Your task to perform on an android device: Go to internet settings Image 0: 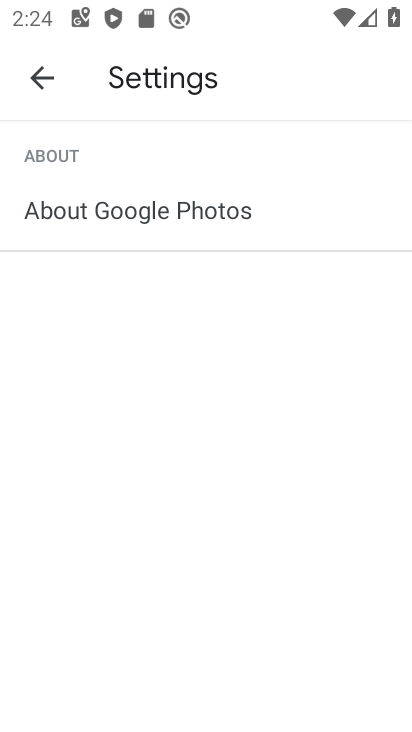
Step 0: press home button
Your task to perform on an android device: Go to internet settings Image 1: 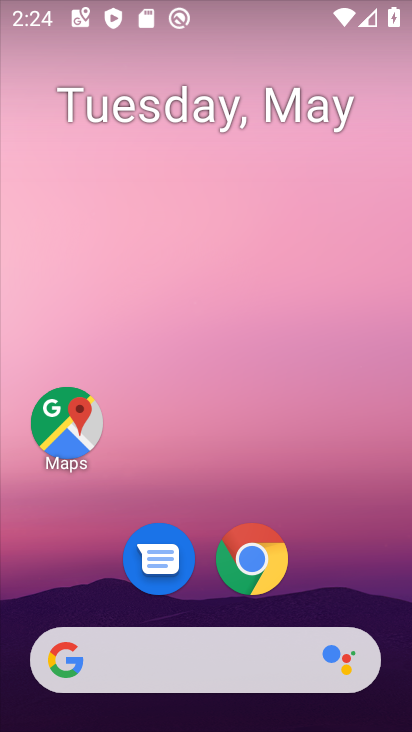
Step 1: drag from (211, 670) to (301, 168)
Your task to perform on an android device: Go to internet settings Image 2: 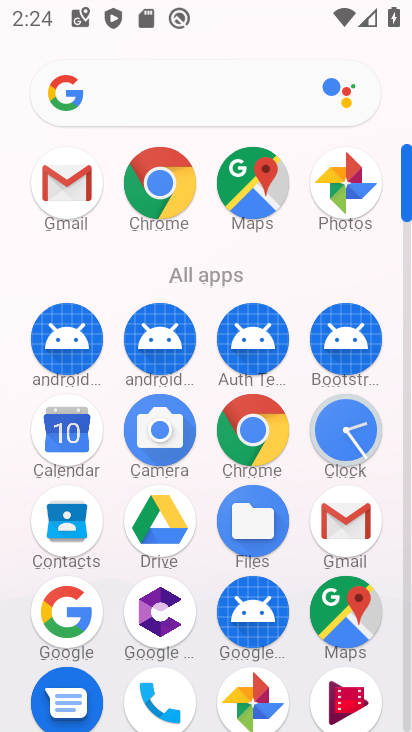
Step 2: drag from (205, 644) to (369, 164)
Your task to perform on an android device: Go to internet settings Image 3: 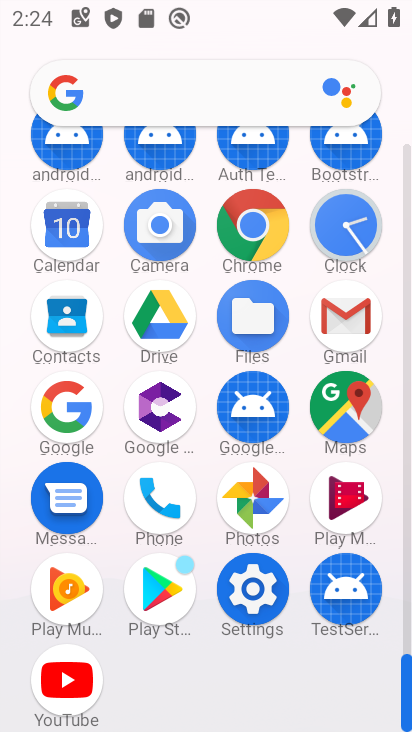
Step 3: click (246, 597)
Your task to perform on an android device: Go to internet settings Image 4: 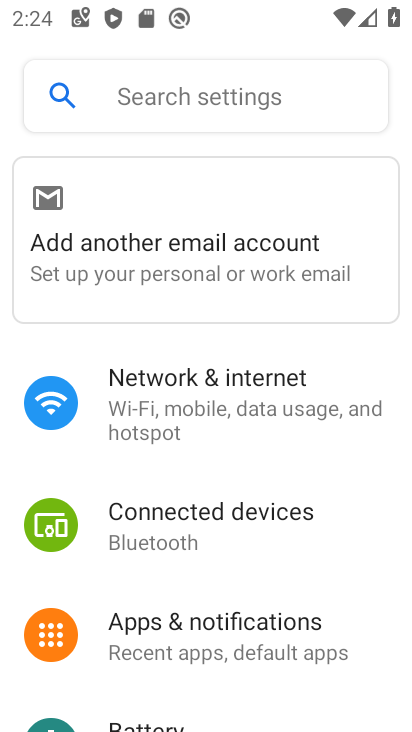
Step 4: click (233, 388)
Your task to perform on an android device: Go to internet settings Image 5: 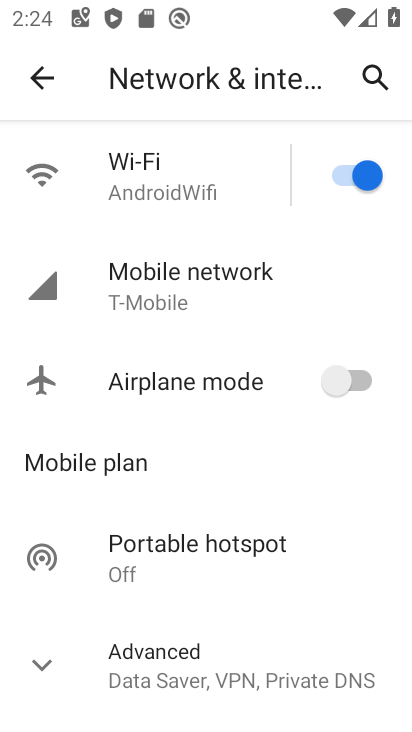
Step 5: click (175, 194)
Your task to perform on an android device: Go to internet settings Image 6: 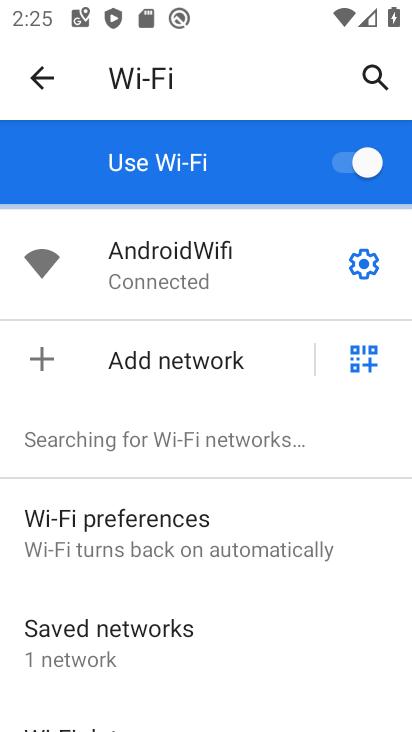
Step 6: task complete